Your task to perform on an android device: Open Google Maps and go to "Timeline" Image 0: 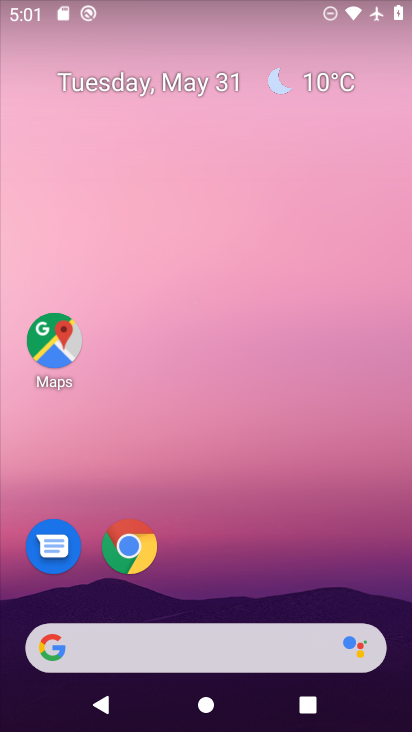
Step 0: click (48, 335)
Your task to perform on an android device: Open Google Maps and go to "Timeline" Image 1: 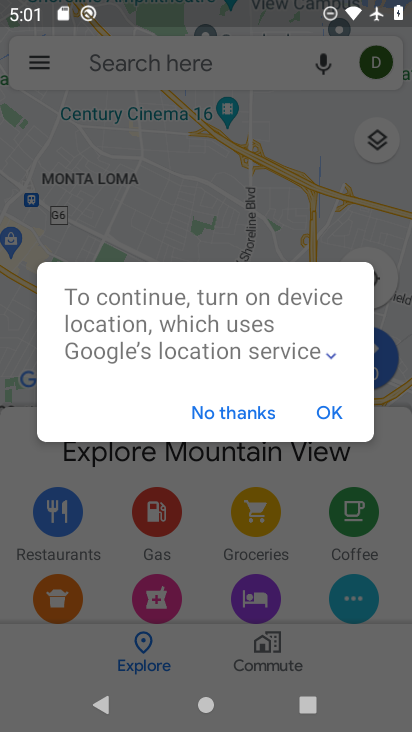
Step 1: click (243, 407)
Your task to perform on an android device: Open Google Maps and go to "Timeline" Image 2: 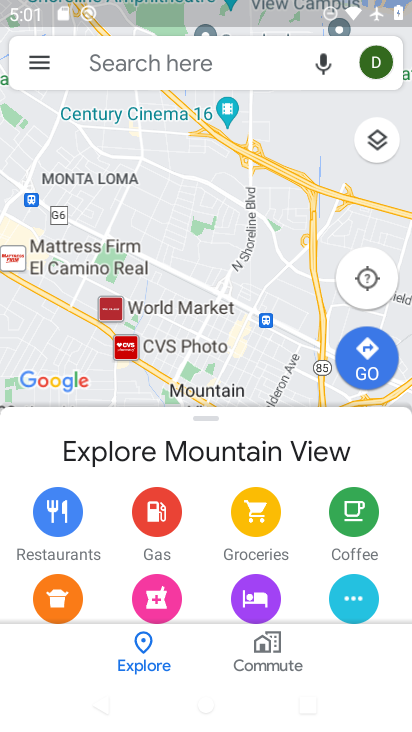
Step 2: click (34, 56)
Your task to perform on an android device: Open Google Maps and go to "Timeline" Image 3: 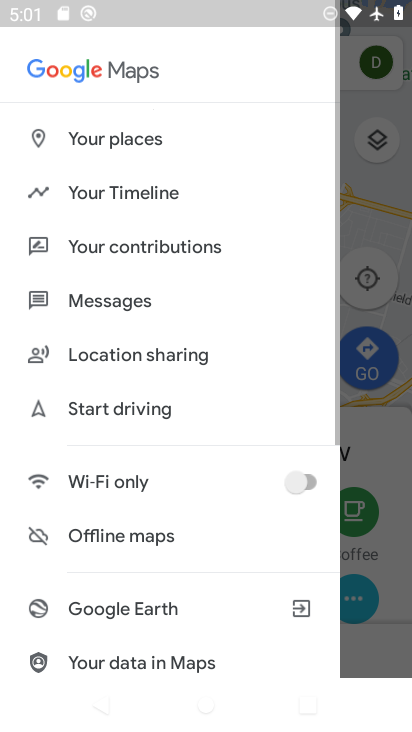
Step 3: click (144, 196)
Your task to perform on an android device: Open Google Maps and go to "Timeline" Image 4: 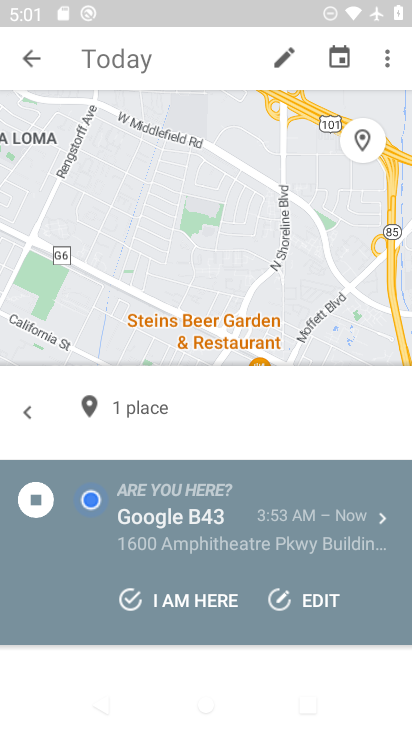
Step 4: task complete